Your task to perform on an android device: move a message to another label in the gmail app Image 0: 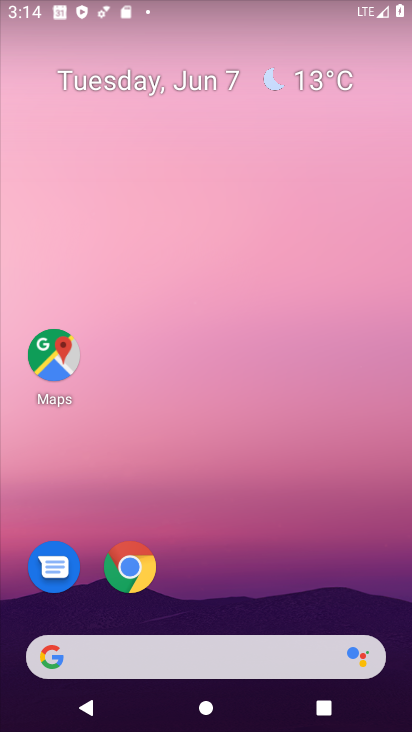
Step 0: drag from (239, 597) to (243, 2)
Your task to perform on an android device: move a message to another label in the gmail app Image 1: 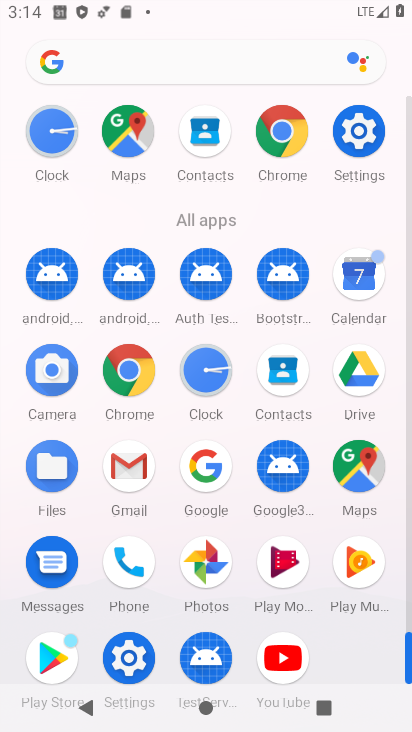
Step 1: click (137, 455)
Your task to perform on an android device: move a message to another label in the gmail app Image 2: 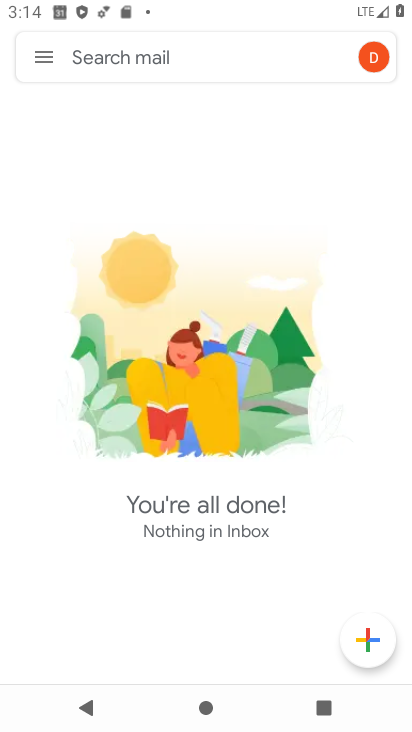
Step 2: task complete